Your task to perform on an android device: all mails in gmail Image 0: 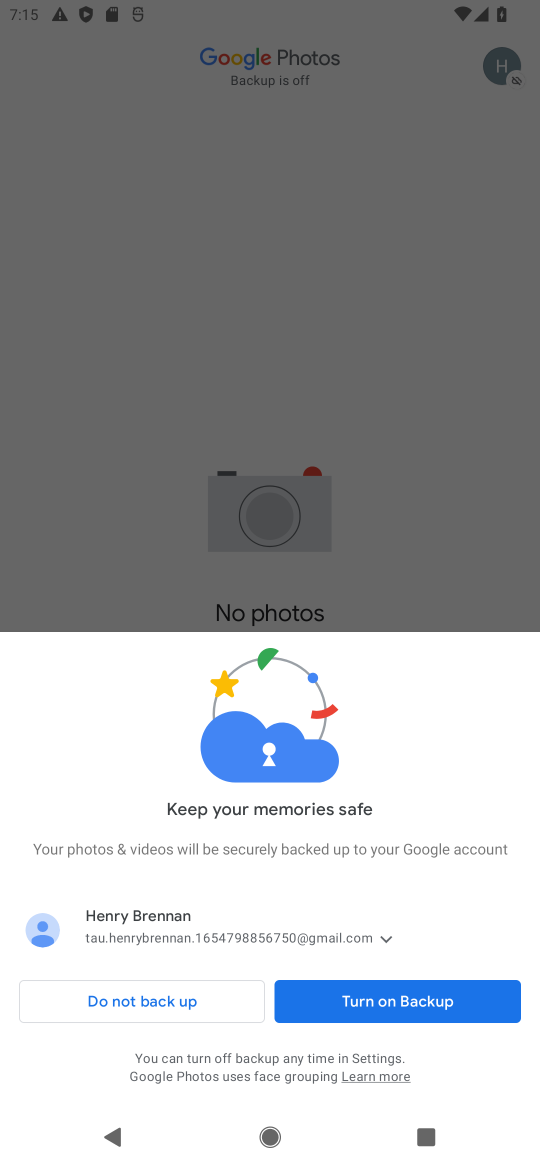
Step 0: press home button
Your task to perform on an android device: all mails in gmail Image 1: 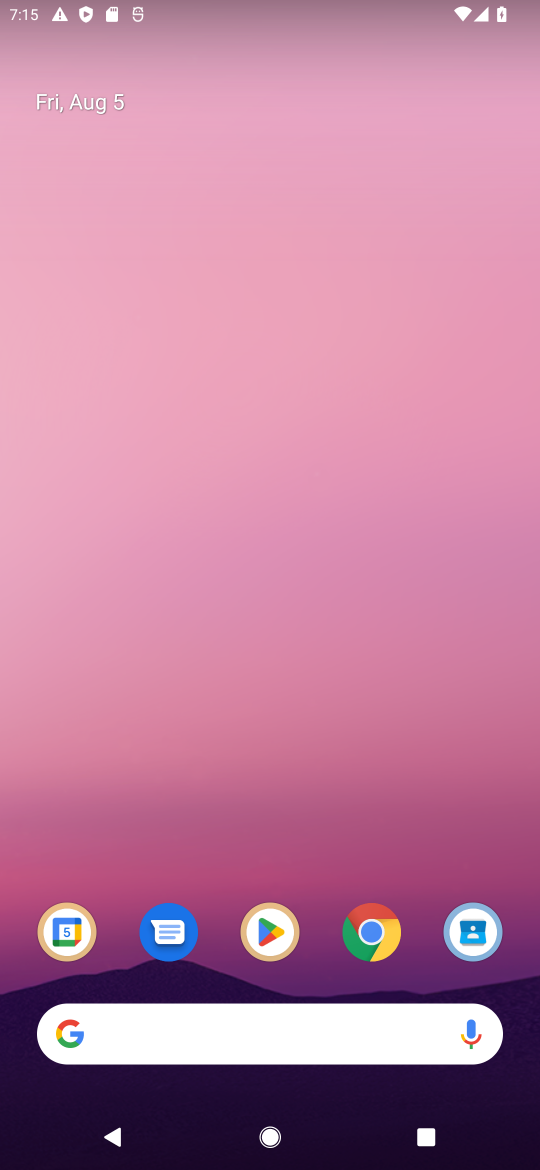
Step 1: drag from (218, 1026) to (187, 127)
Your task to perform on an android device: all mails in gmail Image 2: 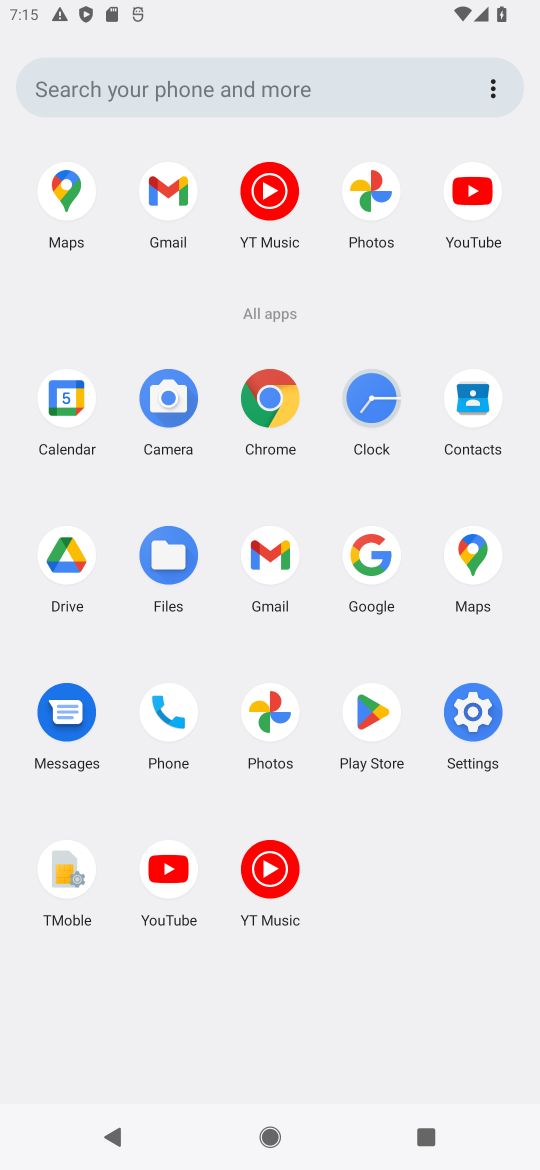
Step 2: click (167, 191)
Your task to perform on an android device: all mails in gmail Image 3: 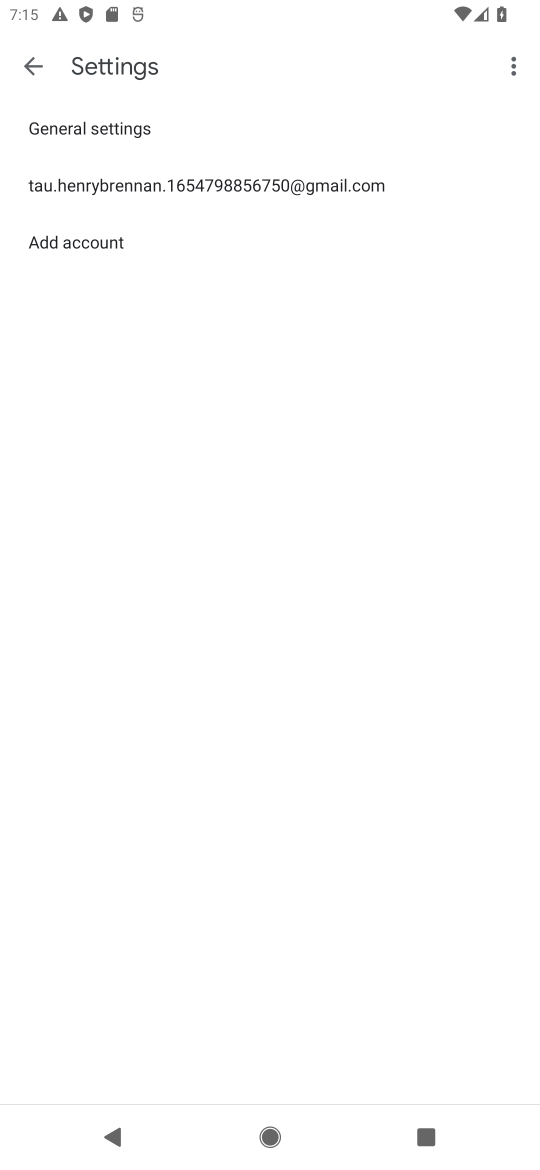
Step 3: click (140, 181)
Your task to perform on an android device: all mails in gmail Image 4: 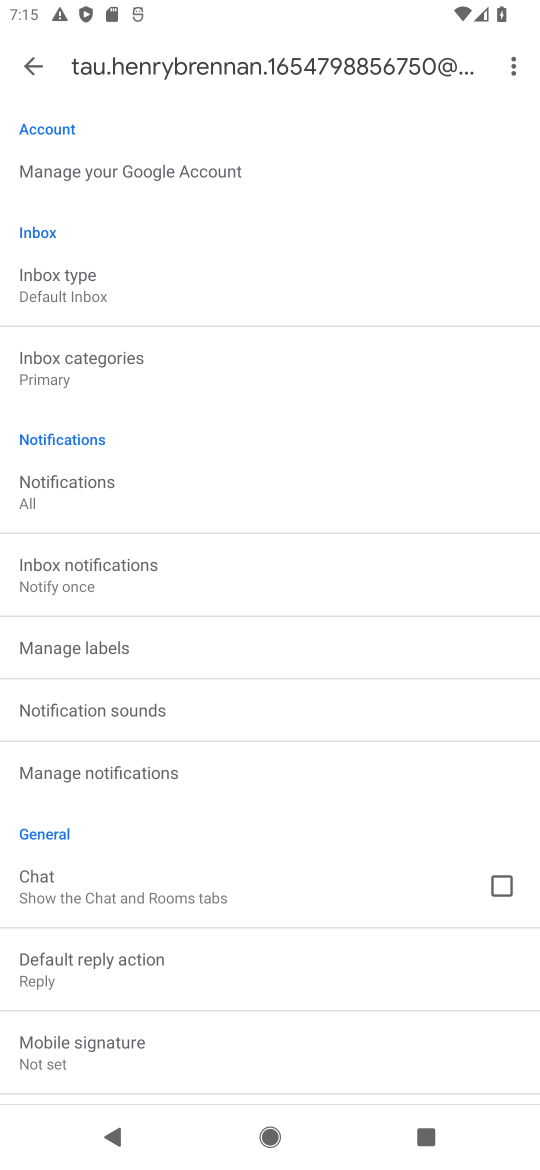
Step 4: press back button
Your task to perform on an android device: all mails in gmail Image 5: 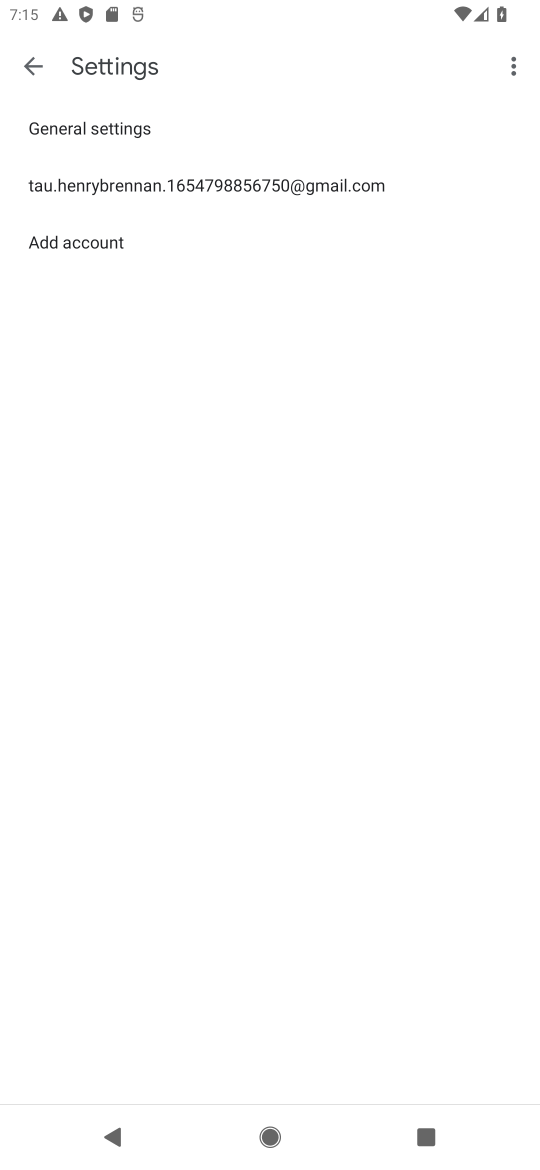
Step 5: press back button
Your task to perform on an android device: all mails in gmail Image 6: 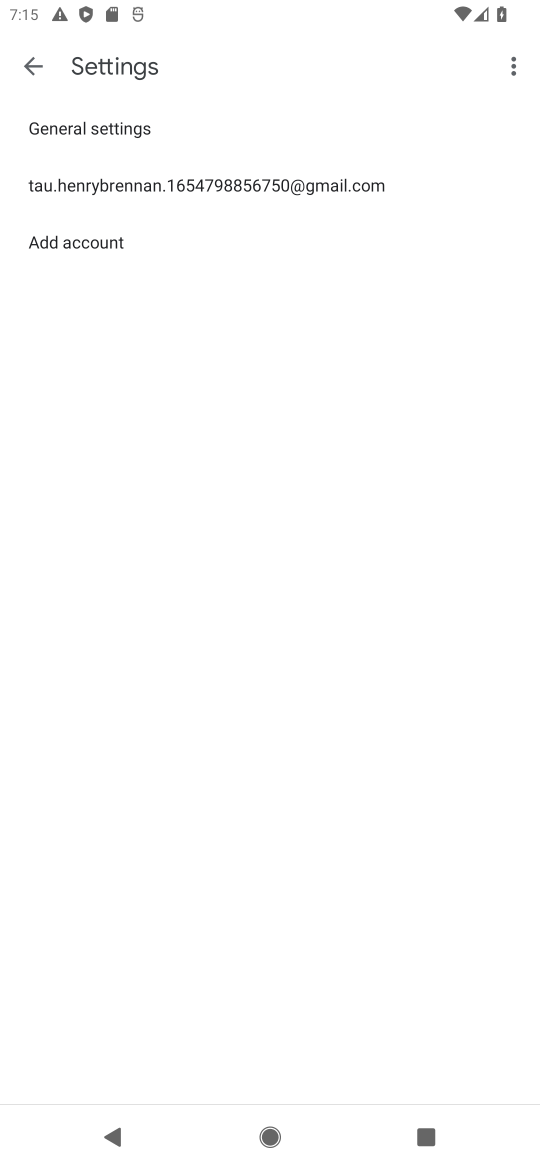
Step 6: press back button
Your task to perform on an android device: all mails in gmail Image 7: 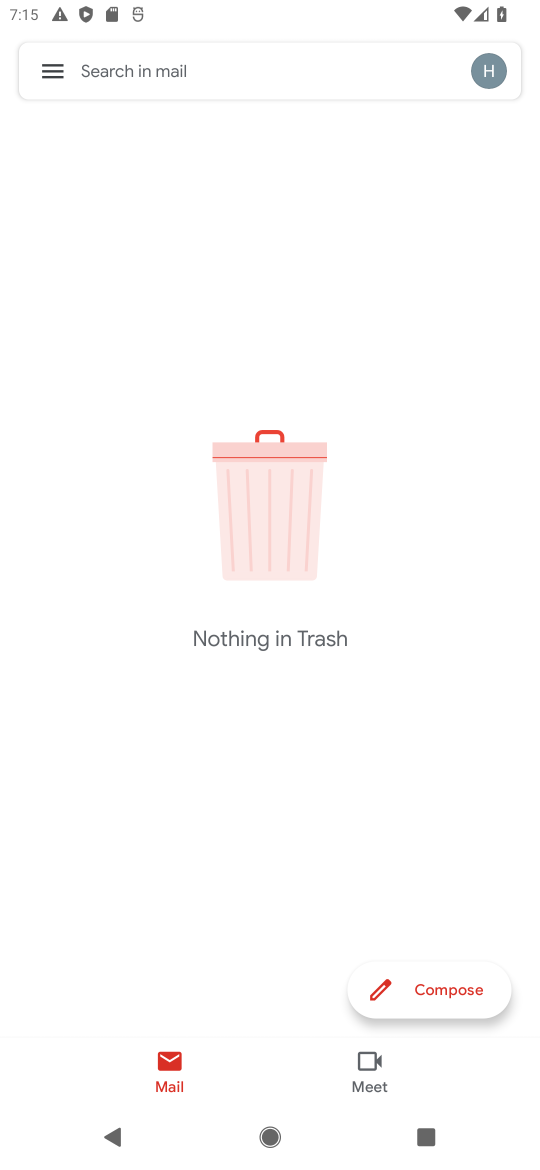
Step 7: click (54, 72)
Your task to perform on an android device: all mails in gmail Image 8: 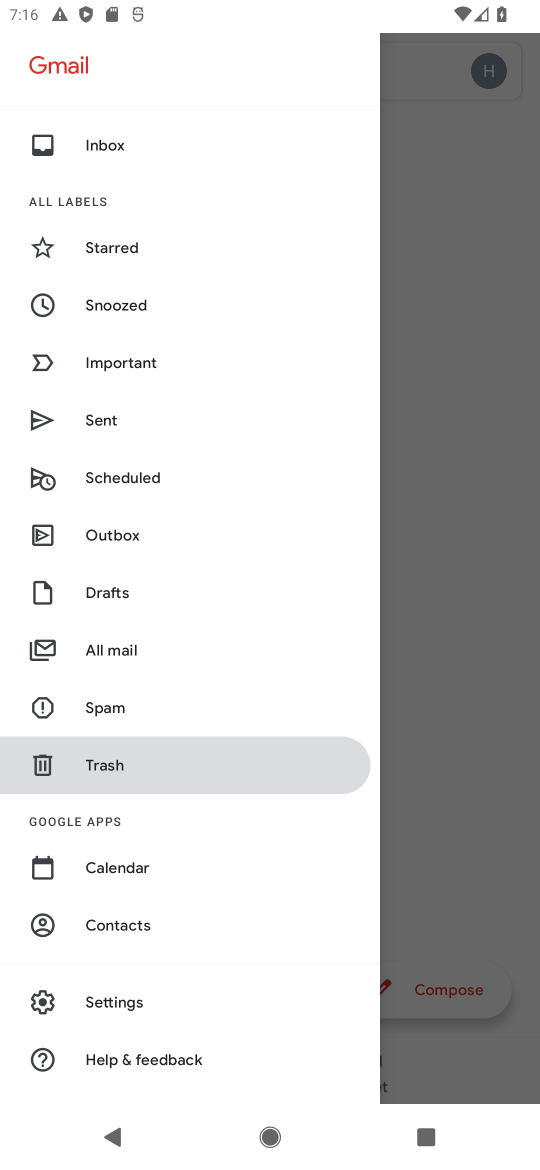
Step 8: click (116, 641)
Your task to perform on an android device: all mails in gmail Image 9: 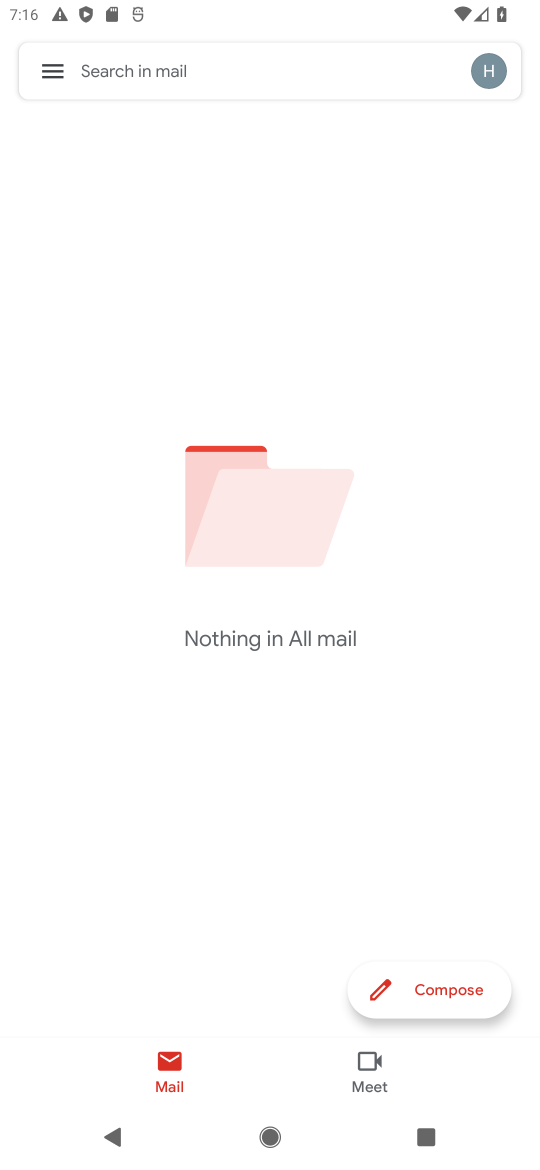
Step 9: task complete